Your task to perform on an android device: Open network settings Image 0: 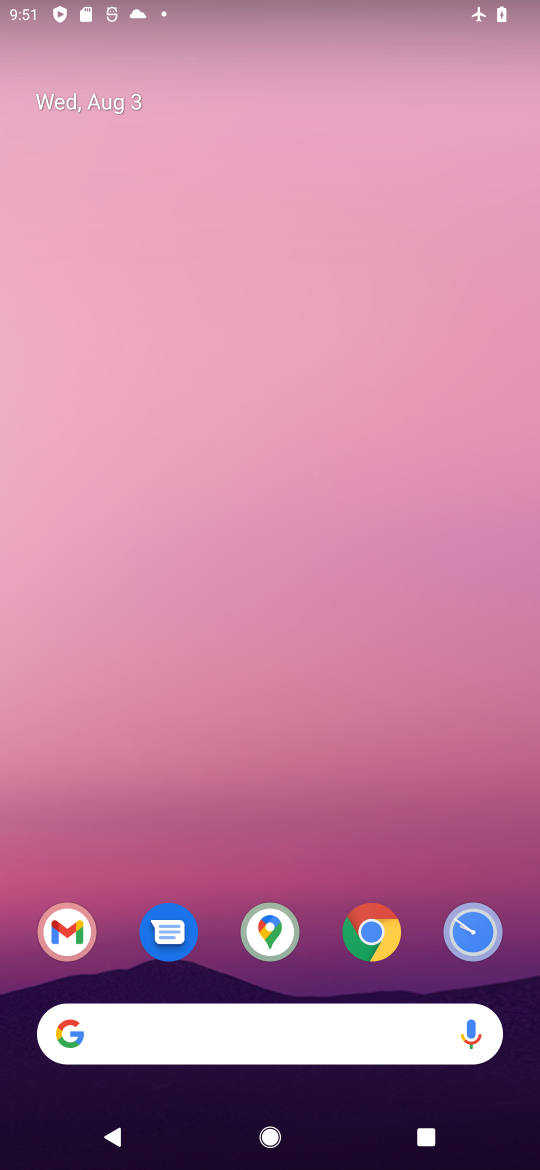
Step 0: drag from (437, 851) to (204, 64)
Your task to perform on an android device: Open network settings Image 1: 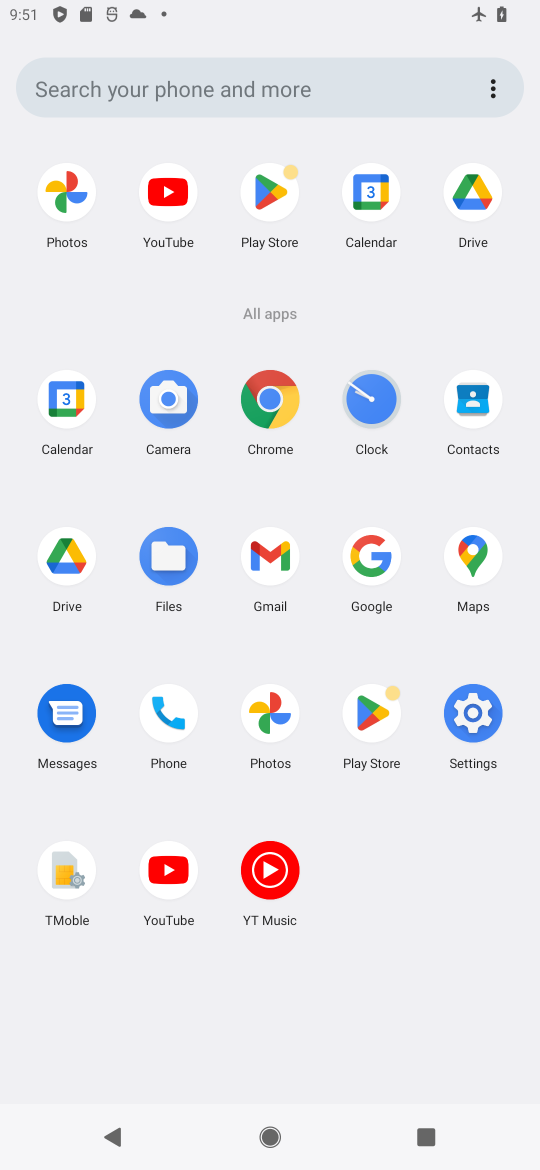
Step 1: click (468, 721)
Your task to perform on an android device: Open network settings Image 2: 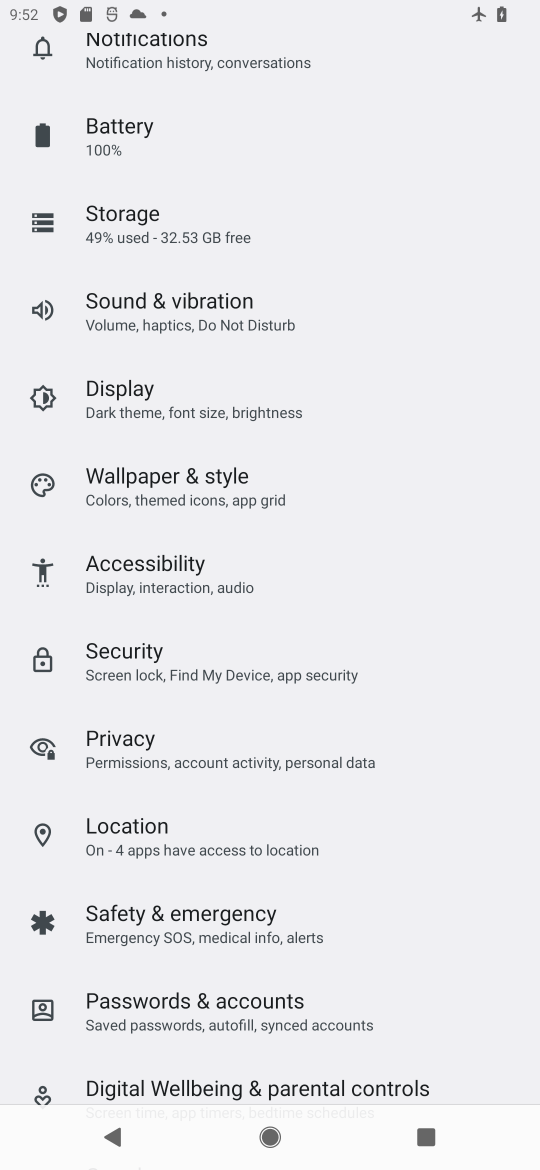
Step 2: drag from (261, 126) to (239, 942)
Your task to perform on an android device: Open network settings Image 3: 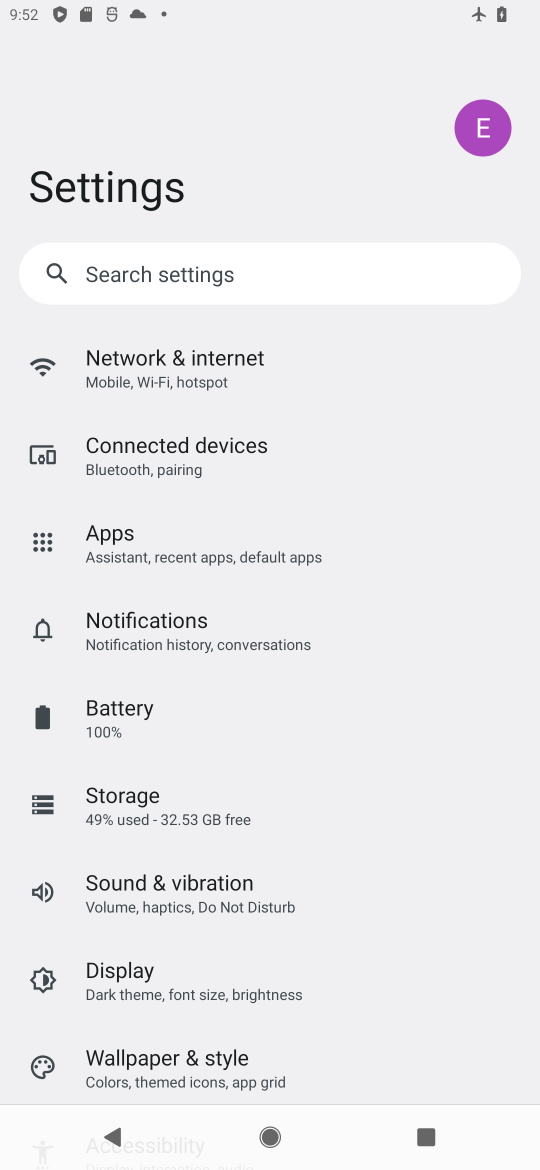
Step 3: click (228, 354)
Your task to perform on an android device: Open network settings Image 4: 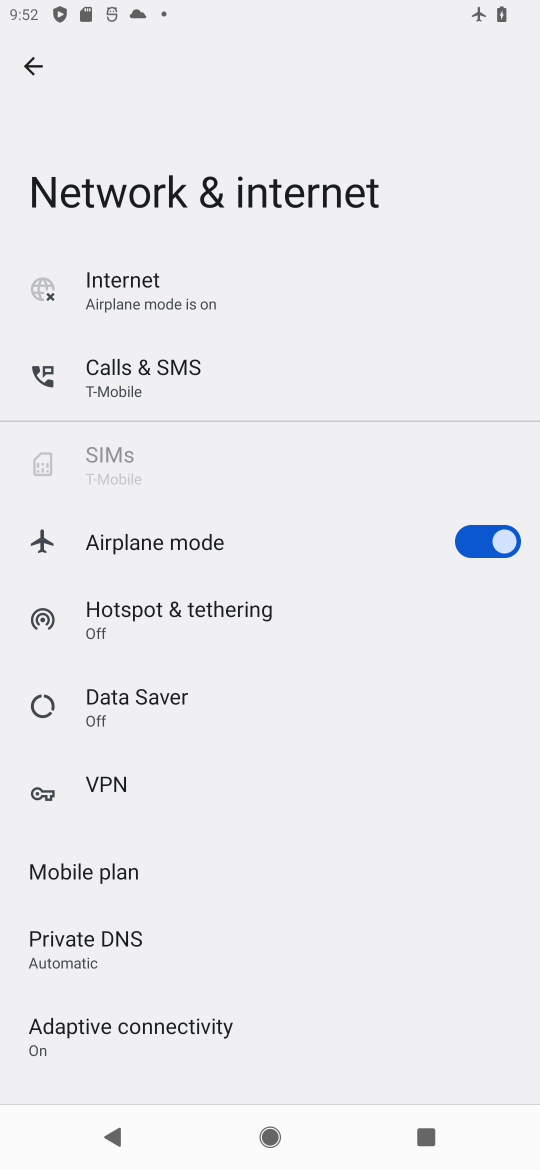
Step 4: click (236, 295)
Your task to perform on an android device: Open network settings Image 5: 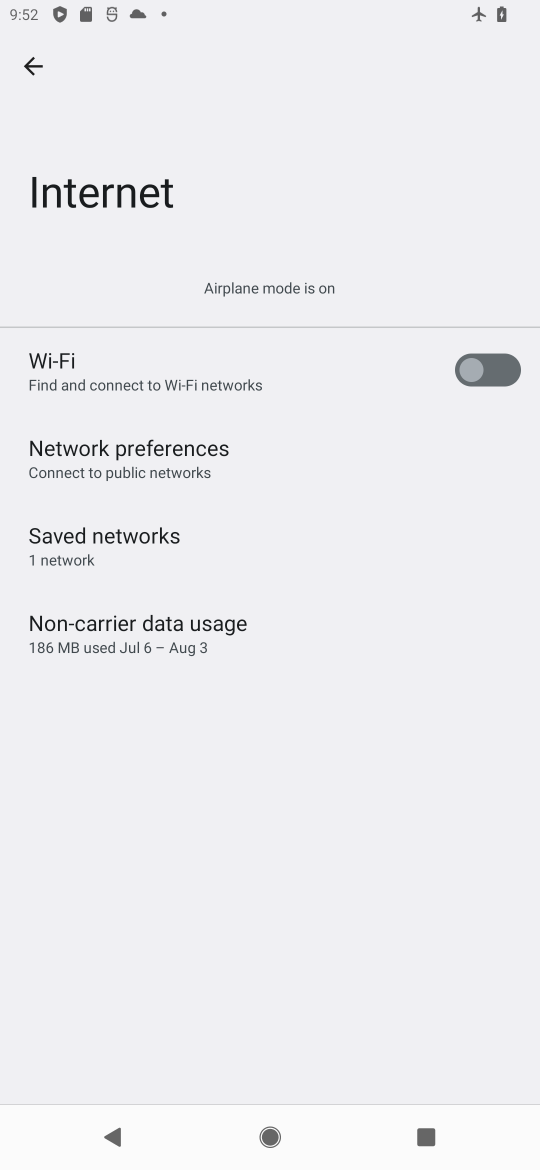
Step 5: task complete